Your task to perform on an android device: Search for seafood restaurants on Google Maps Image 0: 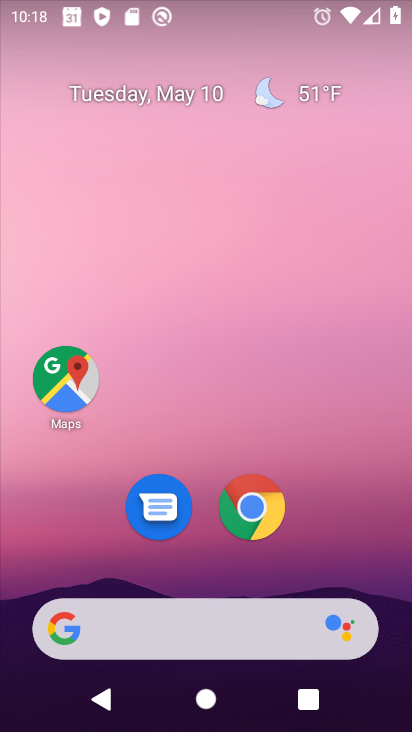
Step 0: click (66, 356)
Your task to perform on an android device: Search for seafood restaurants on Google Maps Image 1: 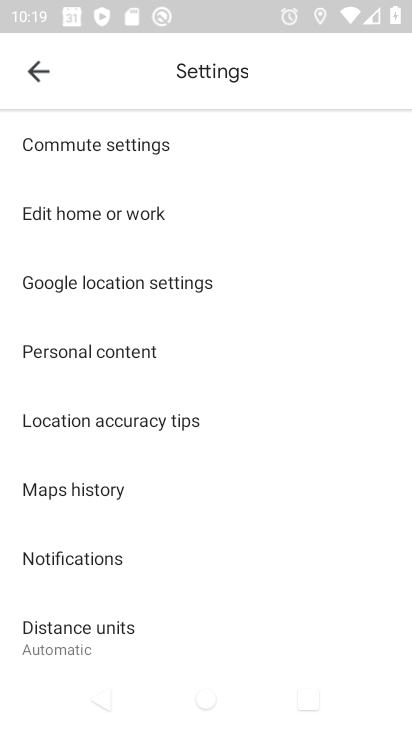
Step 1: press home button
Your task to perform on an android device: Search for seafood restaurants on Google Maps Image 2: 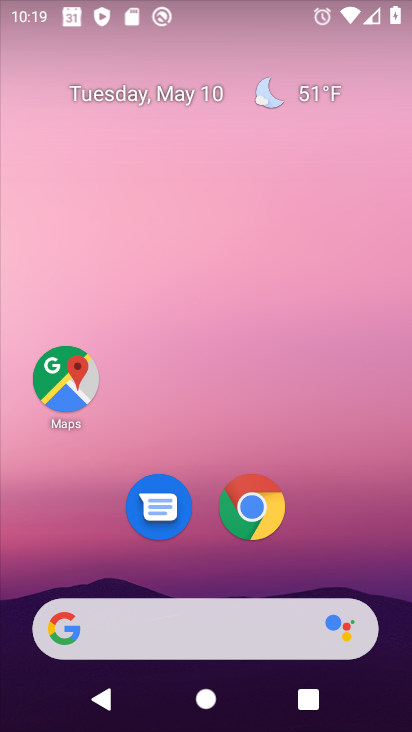
Step 2: click (68, 399)
Your task to perform on an android device: Search for seafood restaurants on Google Maps Image 3: 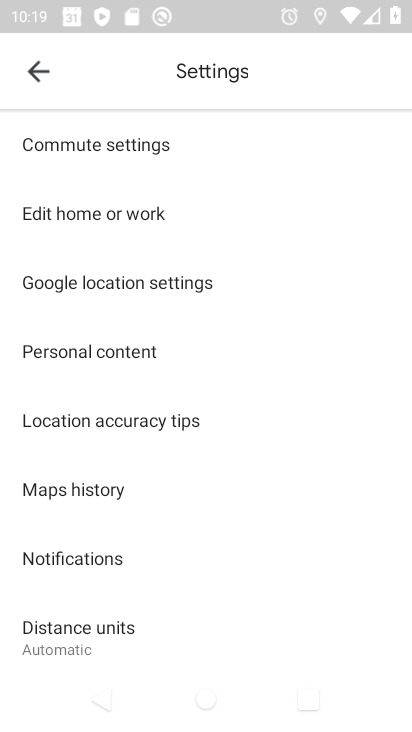
Step 3: click (56, 90)
Your task to perform on an android device: Search for seafood restaurants on Google Maps Image 4: 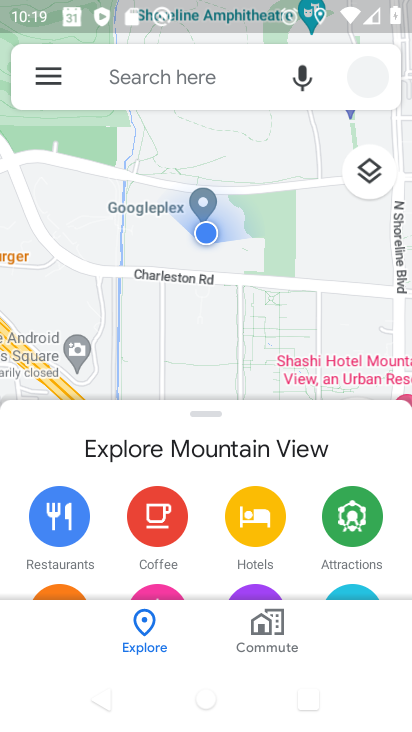
Step 4: click (43, 87)
Your task to perform on an android device: Search for seafood restaurants on Google Maps Image 5: 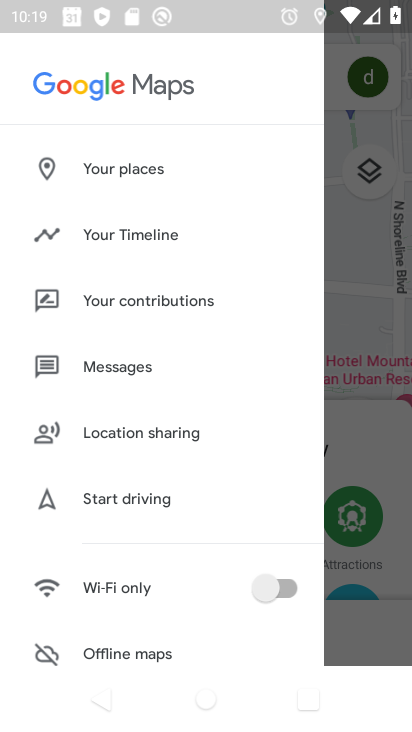
Step 5: click (342, 69)
Your task to perform on an android device: Search for seafood restaurants on Google Maps Image 6: 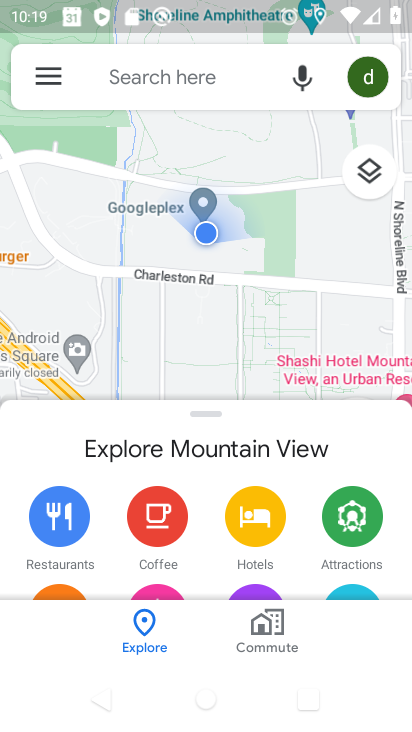
Step 6: click (231, 74)
Your task to perform on an android device: Search for seafood restaurants on Google Maps Image 7: 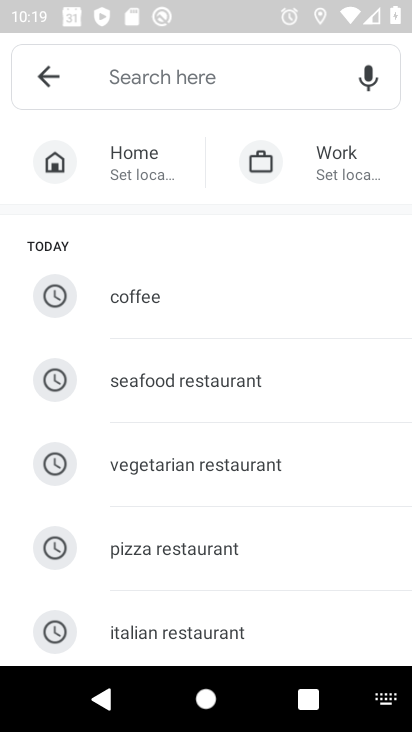
Step 7: click (206, 395)
Your task to perform on an android device: Search for seafood restaurants on Google Maps Image 8: 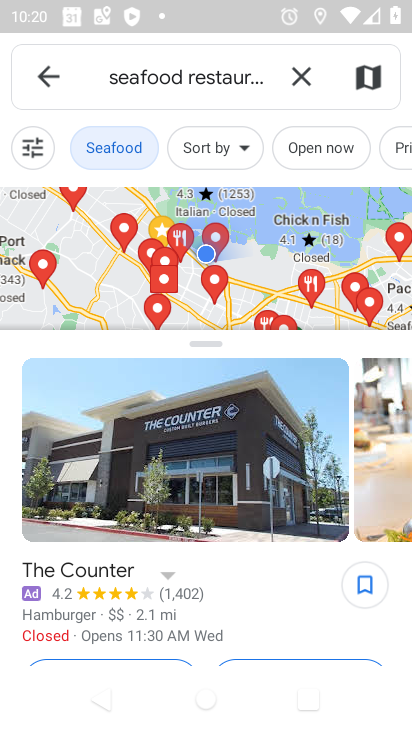
Step 8: task complete